Your task to perform on an android device: Is it going to rain this weekend? Image 0: 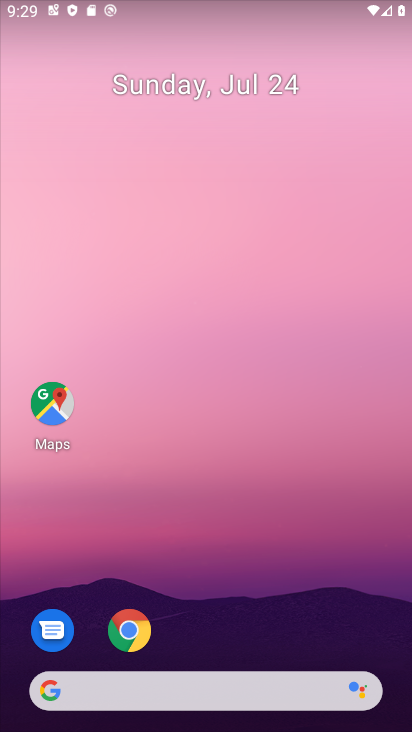
Step 0: drag from (181, 650) to (136, 182)
Your task to perform on an android device: Is it going to rain this weekend? Image 1: 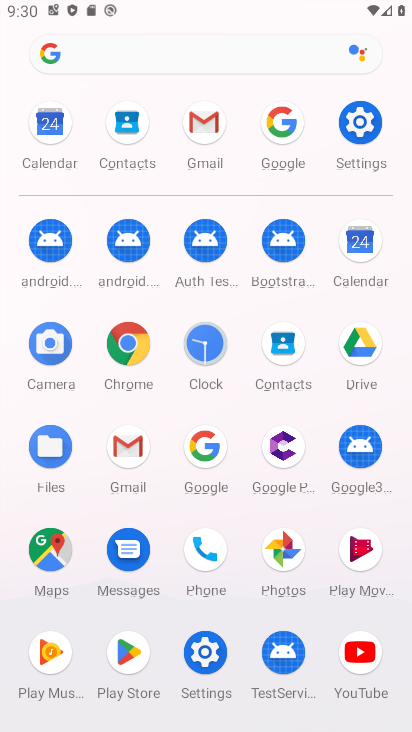
Step 1: click (268, 159)
Your task to perform on an android device: Is it going to rain this weekend? Image 2: 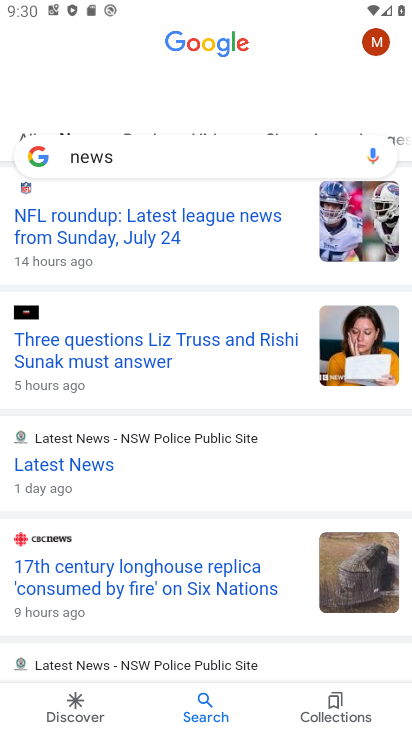
Step 2: click (216, 154)
Your task to perform on an android device: Is it going to rain this weekend? Image 3: 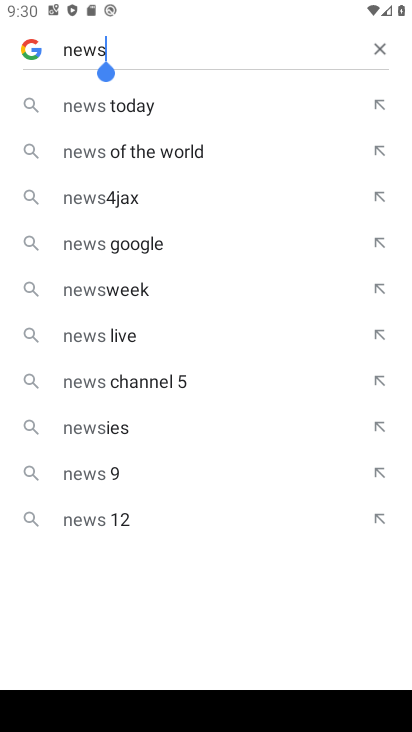
Step 3: click (389, 52)
Your task to perform on an android device: Is it going to rain this weekend? Image 4: 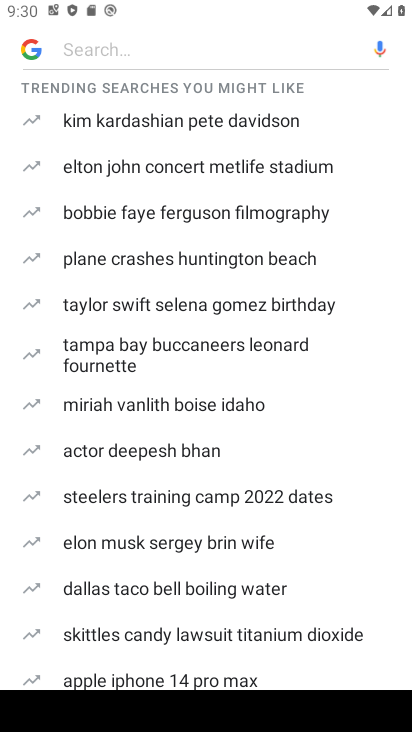
Step 4: type "weather"
Your task to perform on an android device: Is it going to rain this weekend? Image 5: 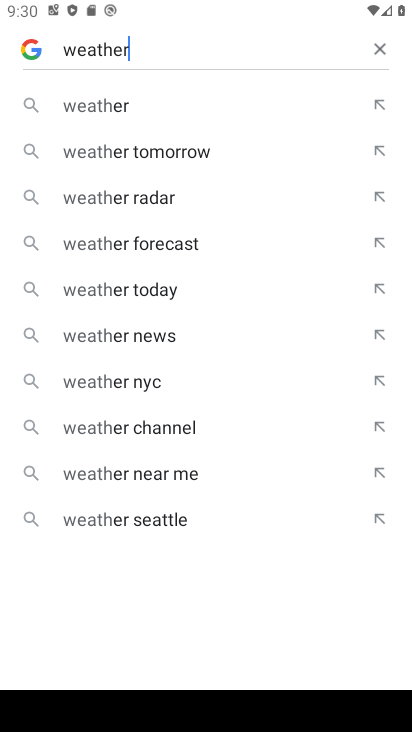
Step 5: type ""
Your task to perform on an android device: Is it going to rain this weekend? Image 6: 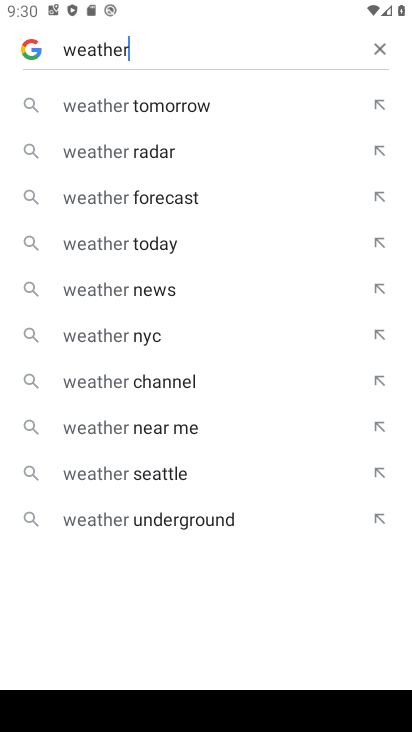
Step 6: click (245, 112)
Your task to perform on an android device: Is it going to rain this weekend? Image 7: 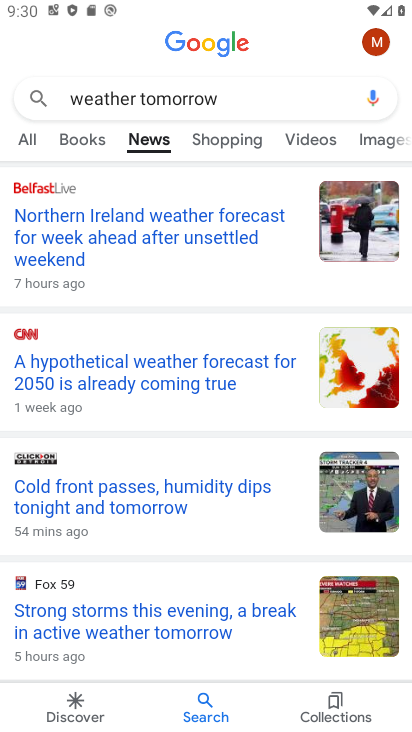
Step 7: click (35, 139)
Your task to perform on an android device: Is it going to rain this weekend? Image 8: 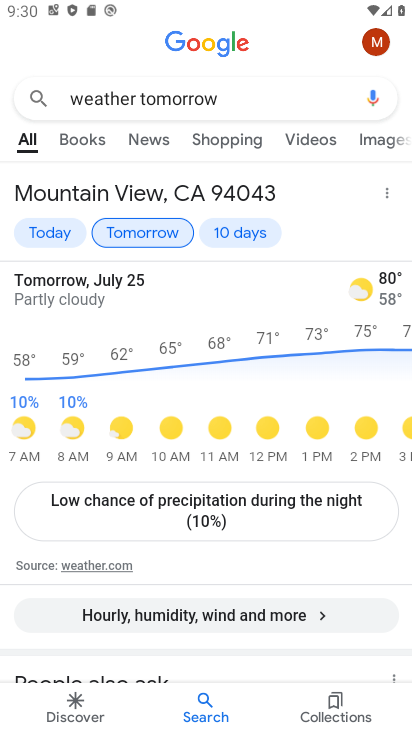
Step 8: click (231, 224)
Your task to perform on an android device: Is it going to rain this weekend? Image 9: 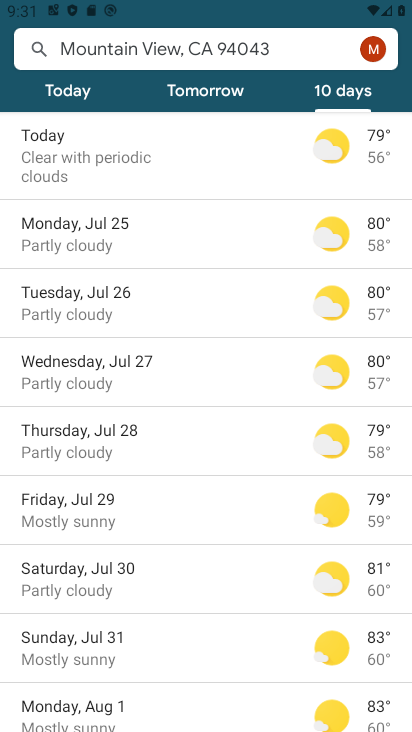
Step 9: task complete